Your task to perform on an android device: Open settings on Google Maps Image 0: 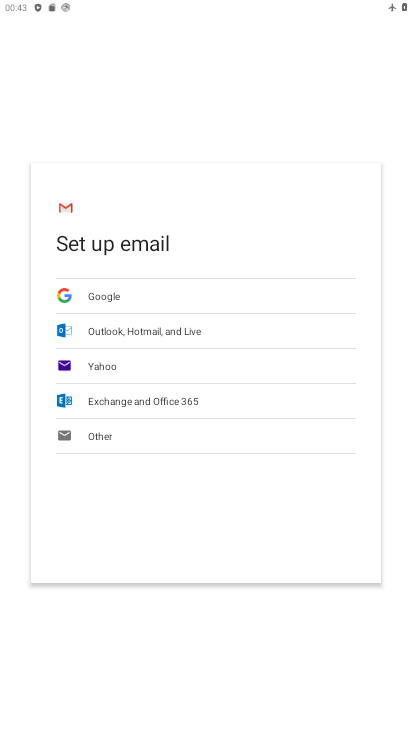
Step 0: press home button
Your task to perform on an android device: Open settings on Google Maps Image 1: 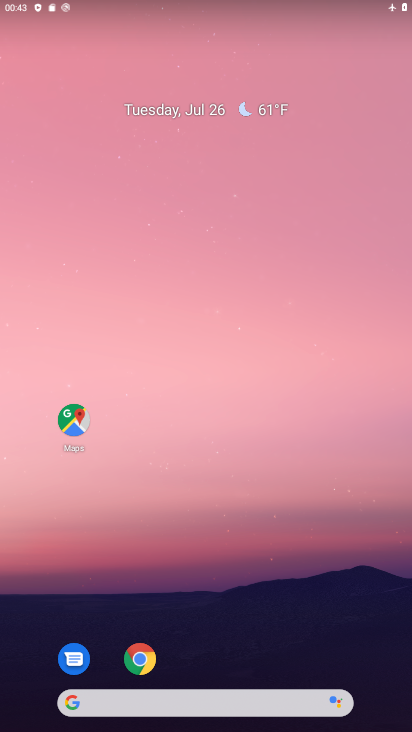
Step 1: drag from (283, 636) to (251, 73)
Your task to perform on an android device: Open settings on Google Maps Image 2: 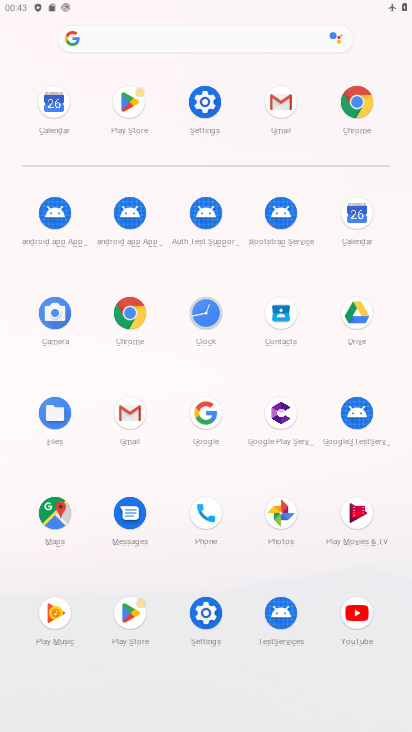
Step 2: click (210, 90)
Your task to perform on an android device: Open settings on Google Maps Image 3: 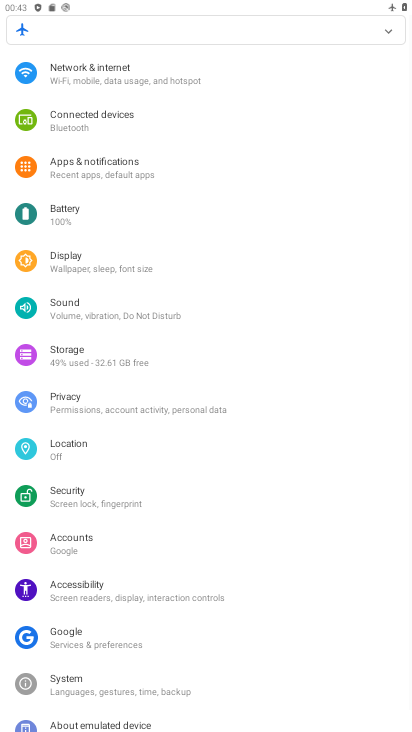
Step 3: press home button
Your task to perform on an android device: Open settings on Google Maps Image 4: 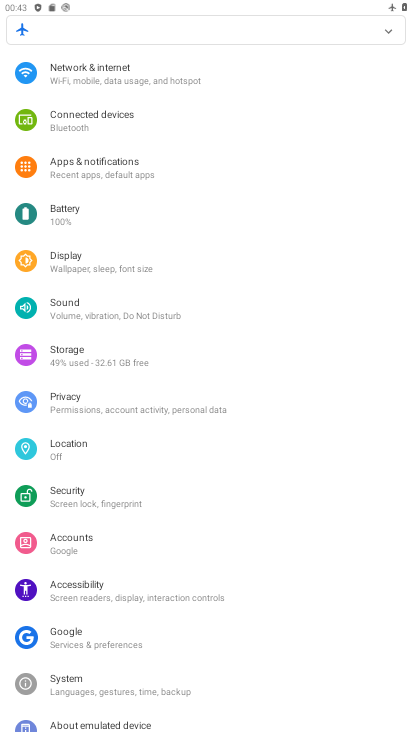
Step 4: press home button
Your task to perform on an android device: Open settings on Google Maps Image 5: 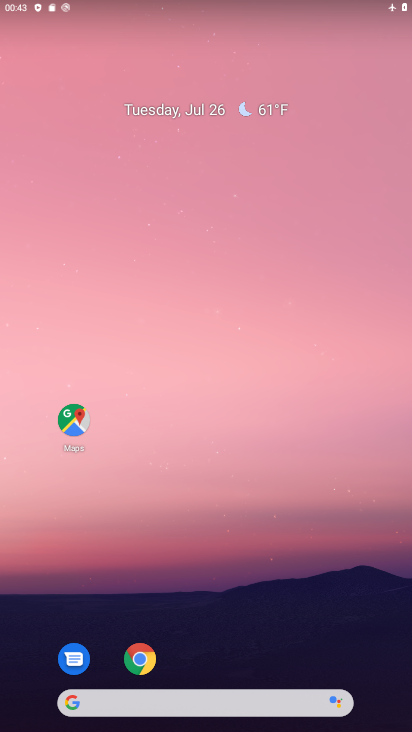
Step 5: drag from (230, 594) to (235, 161)
Your task to perform on an android device: Open settings on Google Maps Image 6: 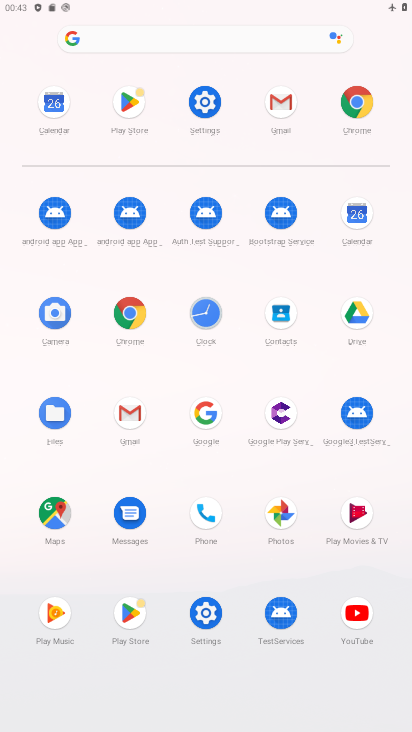
Step 6: click (61, 510)
Your task to perform on an android device: Open settings on Google Maps Image 7: 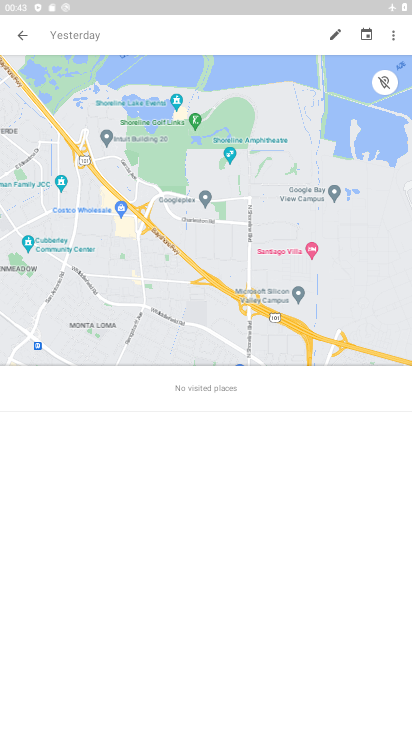
Step 7: click (14, 39)
Your task to perform on an android device: Open settings on Google Maps Image 8: 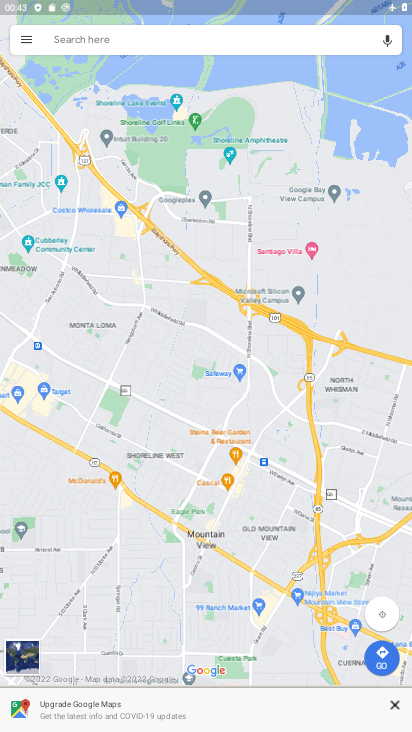
Step 8: click (20, 35)
Your task to perform on an android device: Open settings on Google Maps Image 9: 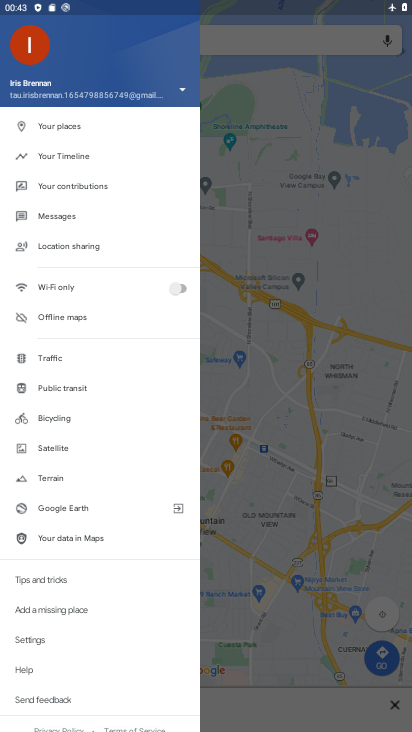
Step 9: click (48, 632)
Your task to perform on an android device: Open settings on Google Maps Image 10: 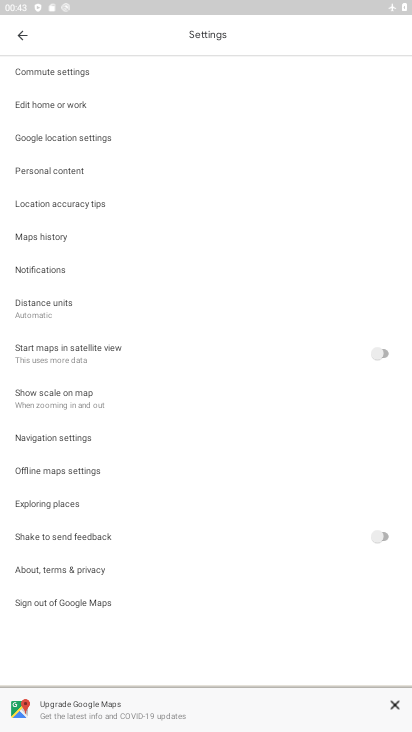
Step 10: task complete